Your task to perform on an android device: Do I have any events today? Image 0: 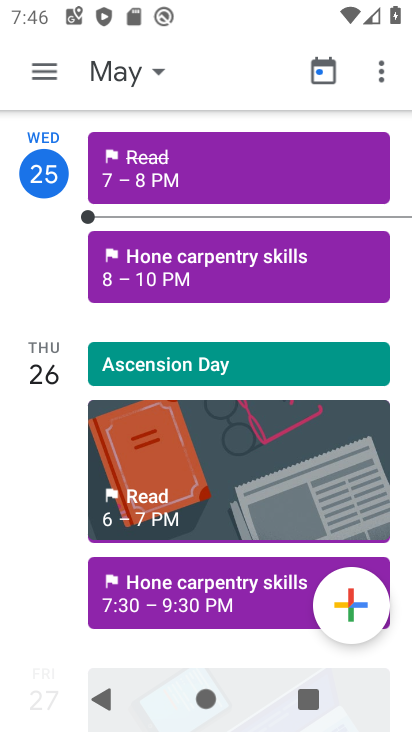
Step 0: drag from (92, 421) to (120, 273)
Your task to perform on an android device: Do I have any events today? Image 1: 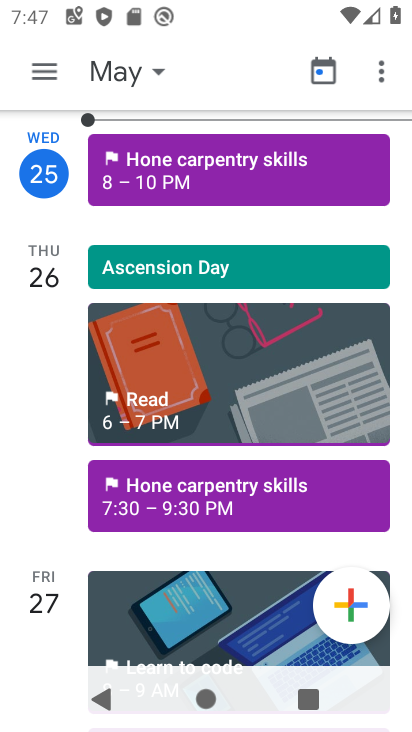
Step 1: task complete